Your task to perform on an android device: Open the phone app and click the voicemail tab. Image 0: 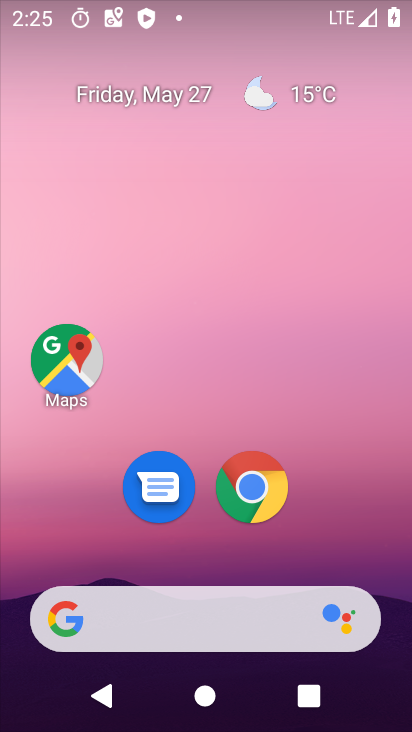
Step 0: drag from (329, 488) to (353, 142)
Your task to perform on an android device: Open the phone app and click the voicemail tab. Image 1: 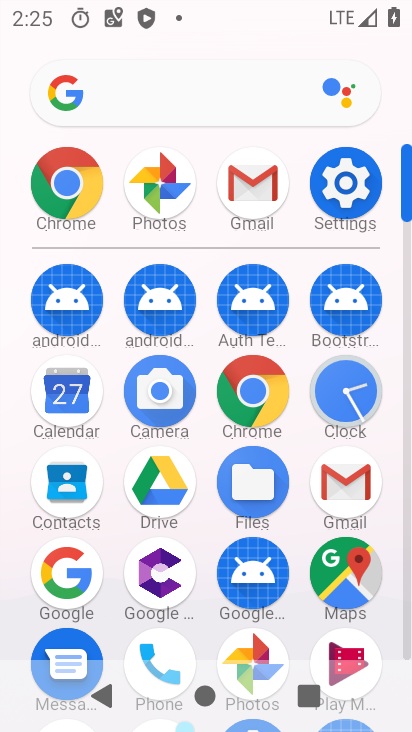
Step 1: drag from (295, 616) to (337, 345)
Your task to perform on an android device: Open the phone app and click the voicemail tab. Image 2: 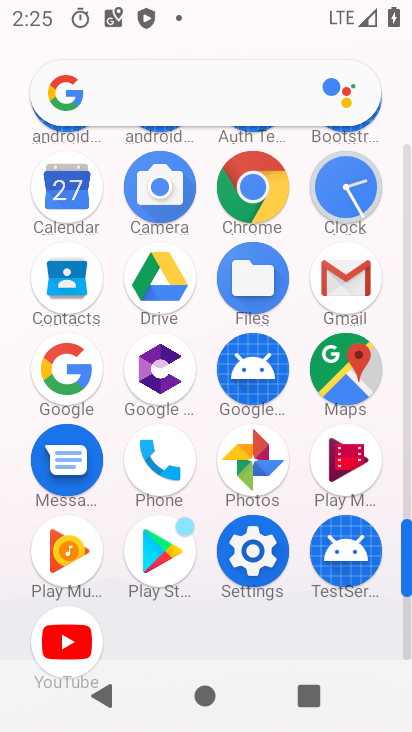
Step 2: click (156, 458)
Your task to perform on an android device: Open the phone app and click the voicemail tab. Image 3: 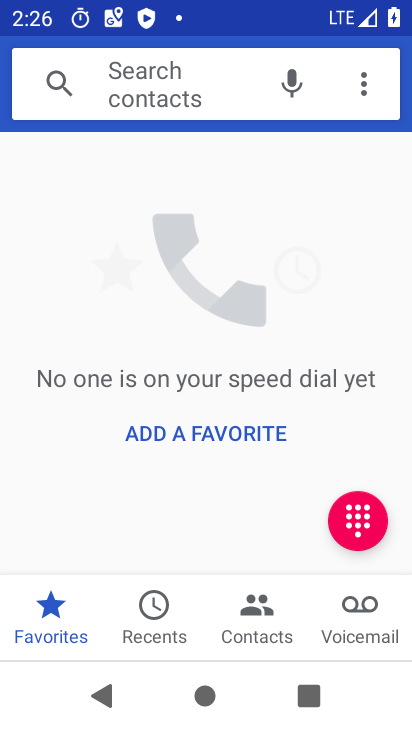
Step 3: click (376, 633)
Your task to perform on an android device: Open the phone app and click the voicemail tab. Image 4: 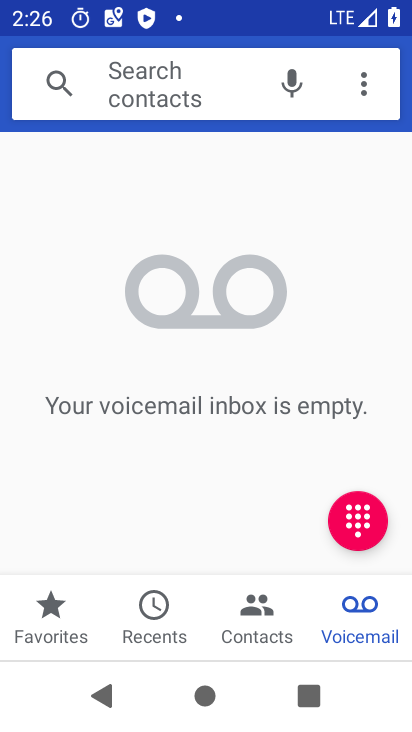
Step 4: task complete